Your task to perform on an android device: Show me the alarms in the clock app Image 0: 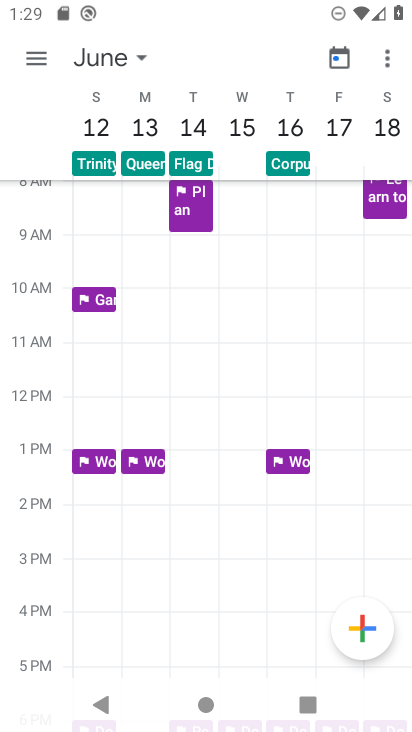
Step 0: press home button
Your task to perform on an android device: Show me the alarms in the clock app Image 1: 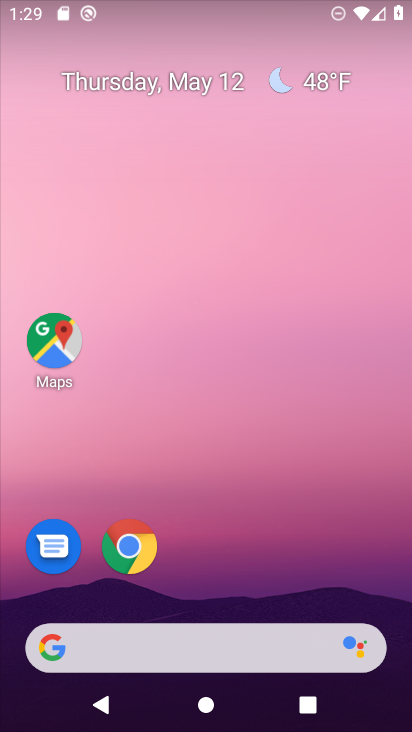
Step 1: drag from (276, 684) to (257, 316)
Your task to perform on an android device: Show me the alarms in the clock app Image 2: 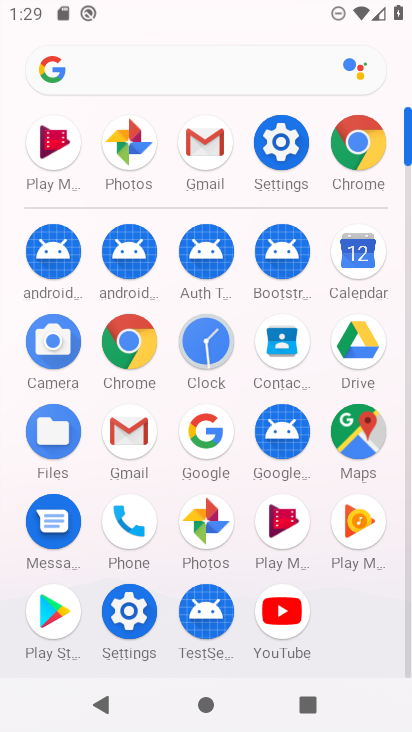
Step 2: click (218, 352)
Your task to perform on an android device: Show me the alarms in the clock app Image 3: 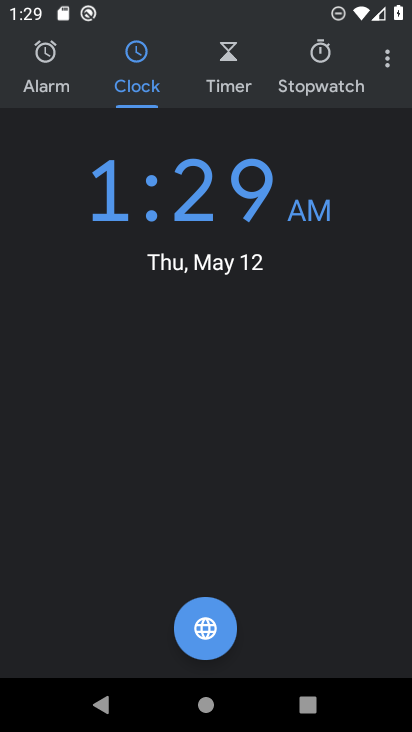
Step 3: click (65, 92)
Your task to perform on an android device: Show me the alarms in the clock app Image 4: 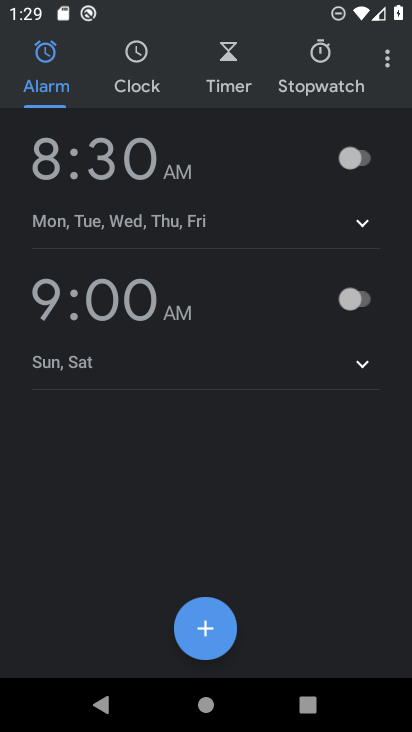
Step 4: click (145, 181)
Your task to perform on an android device: Show me the alarms in the clock app Image 5: 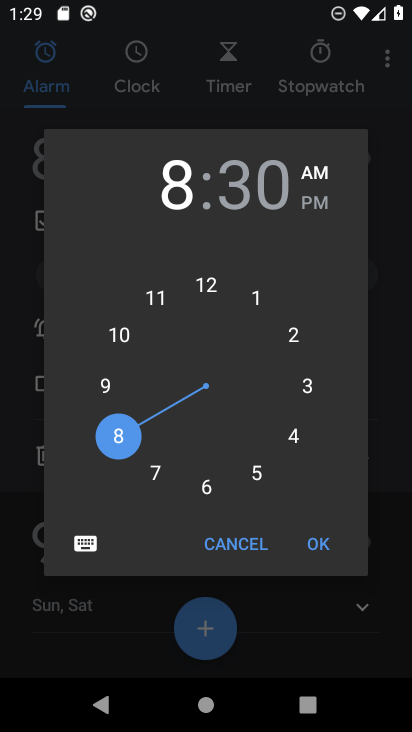
Step 5: task complete